Your task to perform on an android device: What's the weather going to be tomorrow? Image 0: 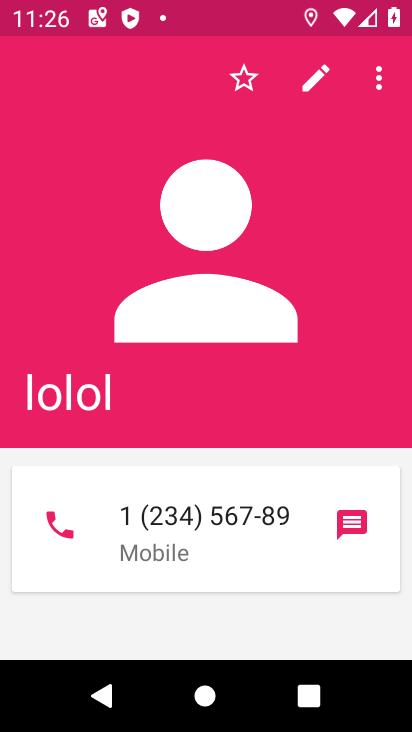
Step 0: press home button
Your task to perform on an android device: What's the weather going to be tomorrow? Image 1: 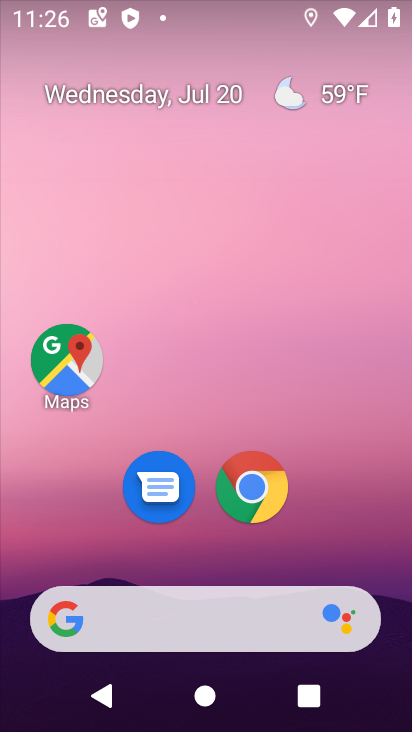
Step 1: click (230, 625)
Your task to perform on an android device: What's the weather going to be tomorrow? Image 2: 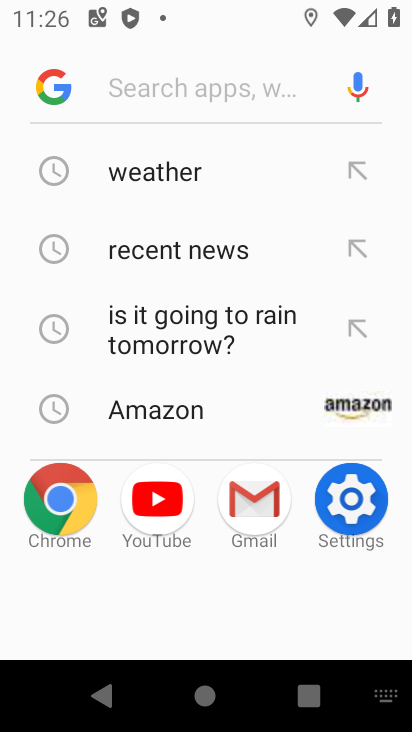
Step 2: click (191, 167)
Your task to perform on an android device: What's the weather going to be tomorrow? Image 3: 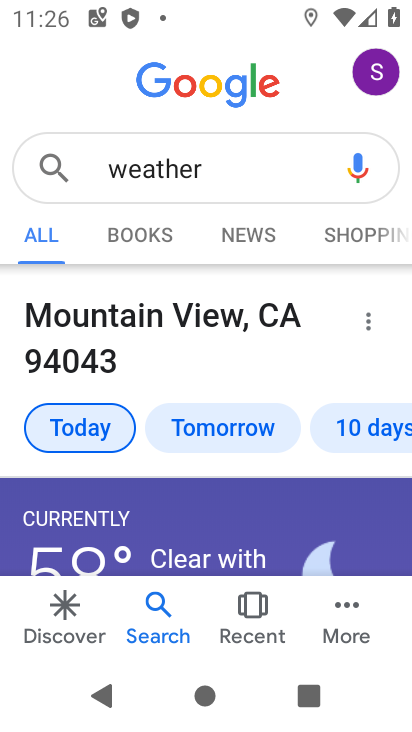
Step 3: click (262, 424)
Your task to perform on an android device: What's the weather going to be tomorrow? Image 4: 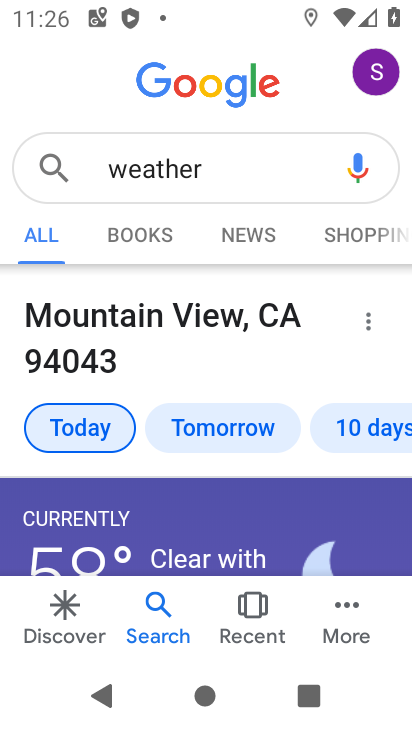
Step 4: click (262, 424)
Your task to perform on an android device: What's the weather going to be tomorrow? Image 5: 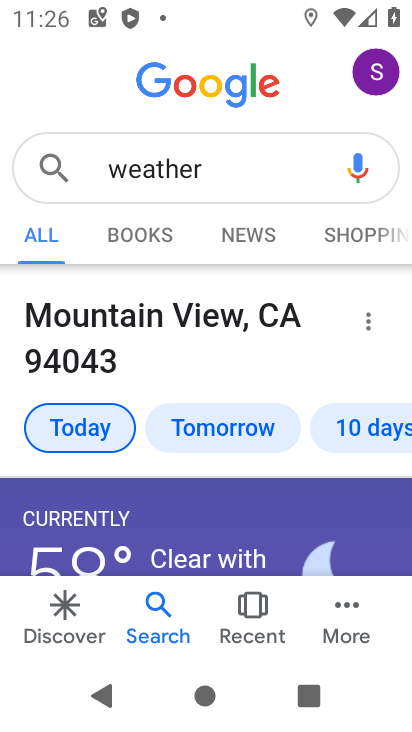
Step 5: click (262, 424)
Your task to perform on an android device: What's the weather going to be tomorrow? Image 6: 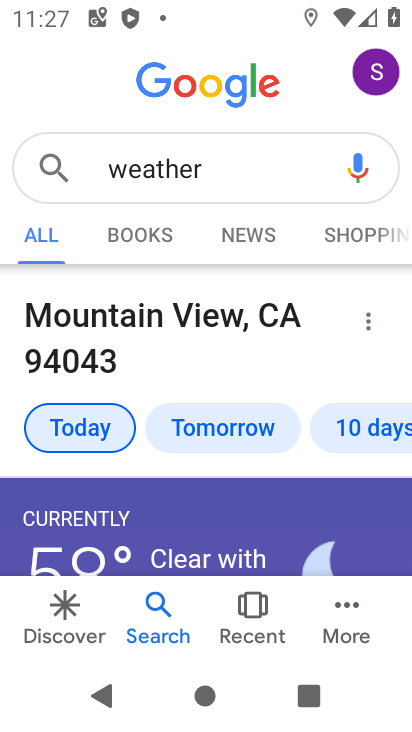
Step 6: task complete